Your task to perform on an android device: Open wifi settings Image 0: 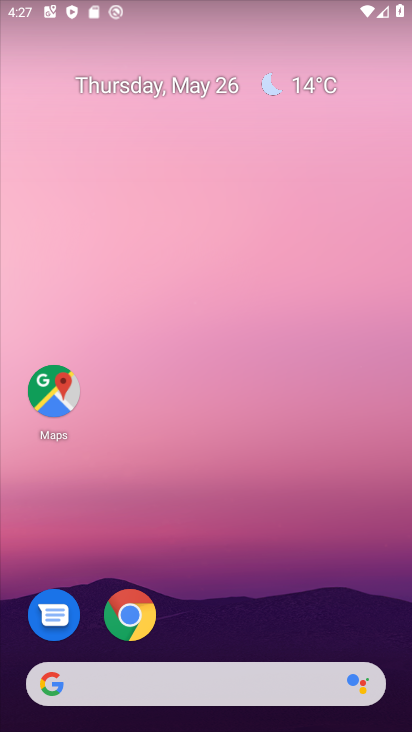
Step 0: drag from (228, 580) to (276, 196)
Your task to perform on an android device: Open wifi settings Image 1: 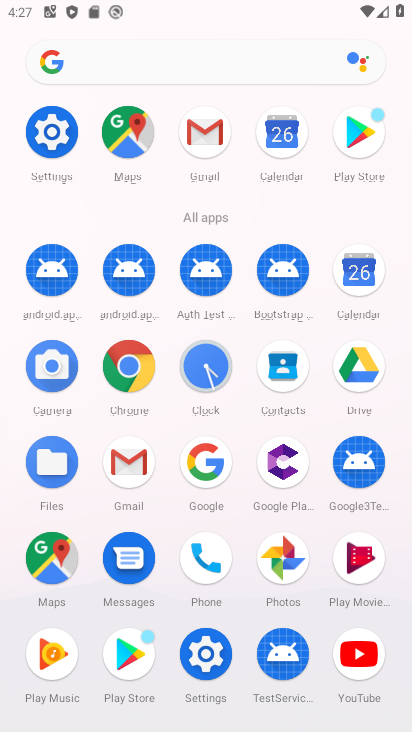
Step 1: click (42, 133)
Your task to perform on an android device: Open wifi settings Image 2: 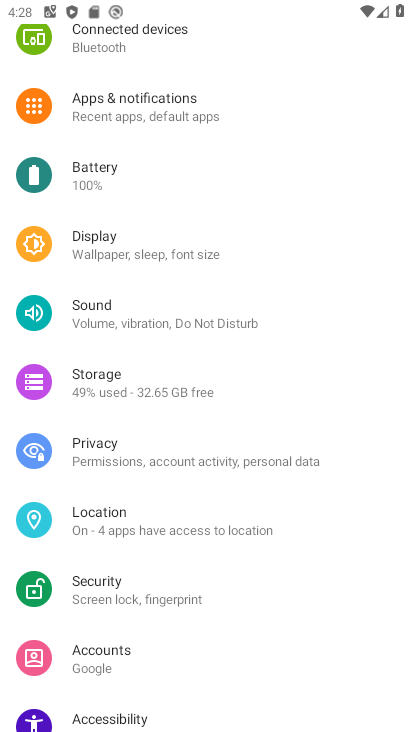
Step 2: drag from (214, 151) to (240, 587)
Your task to perform on an android device: Open wifi settings Image 3: 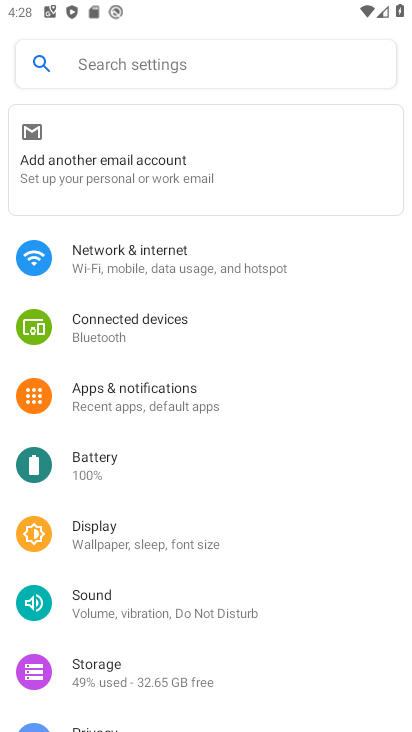
Step 3: click (183, 250)
Your task to perform on an android device: Open wifi settings Image 4: 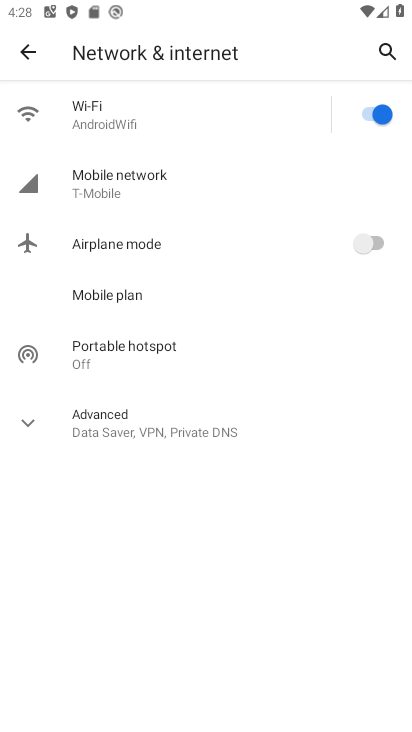
Step 4: click (197, 118)
Your task to perform on an android device: Open wifi settings Image 5: 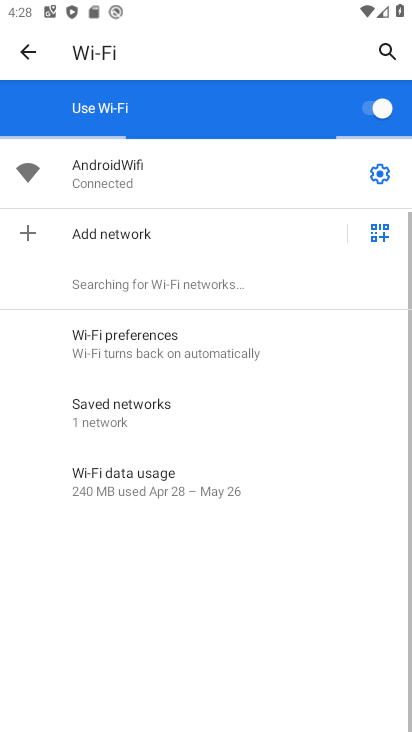
Step 5: click (372, 171)
Your task to perform on an android device: Open wifi settings Image 6: 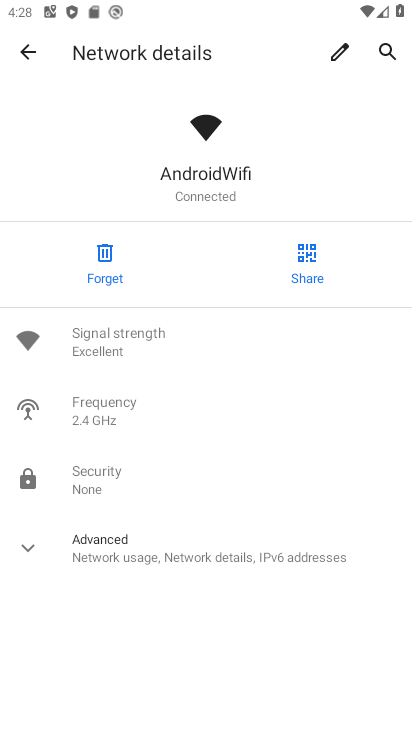
Step 6: task complete